Your task to perform on an android device: check battery use Image 0: 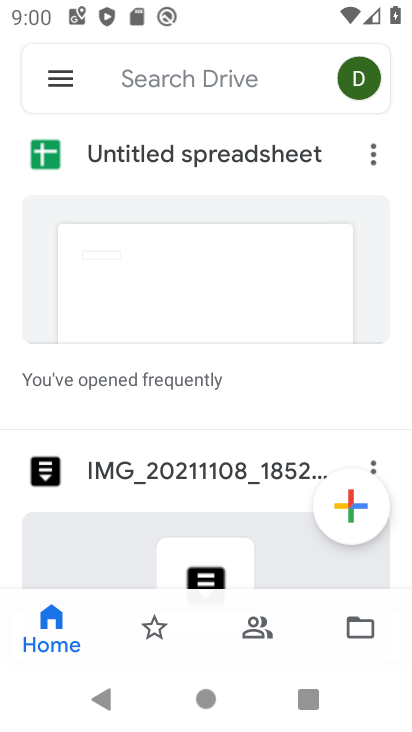
Step 0: press home button
Your task to perform on an android device: check battery use Image 1: 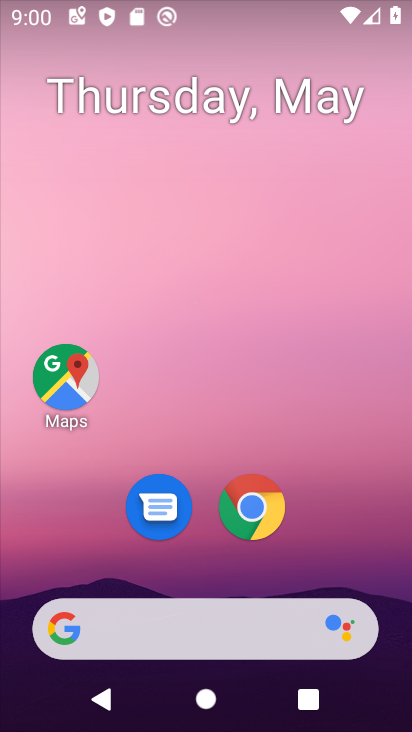
Step 1: drag from (261, 661) to (174, 218)
Your task to perform on an android device: check battery use Image 2: 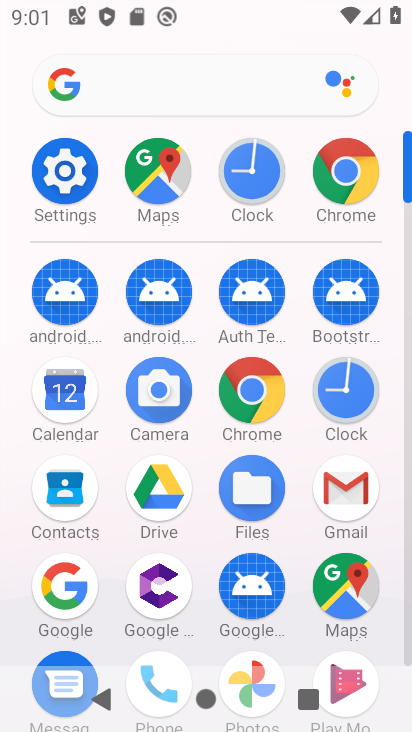
Step 2: click (70, 195)
Your task to perform on an android device: check battery use Image 3: 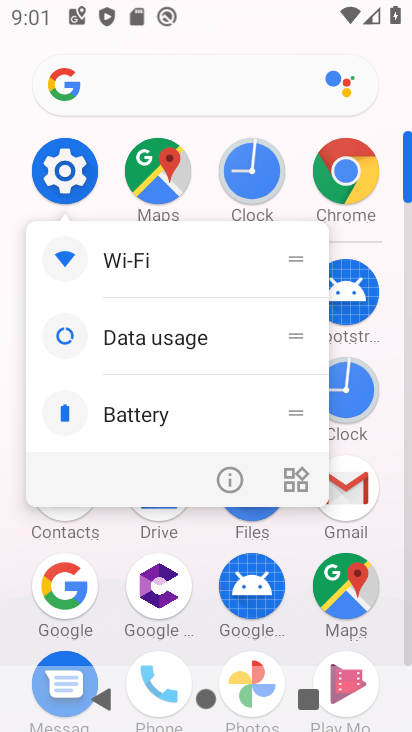
Step 3: click (62, 178)
Your task to perform on an android device: check battery use Image 4: 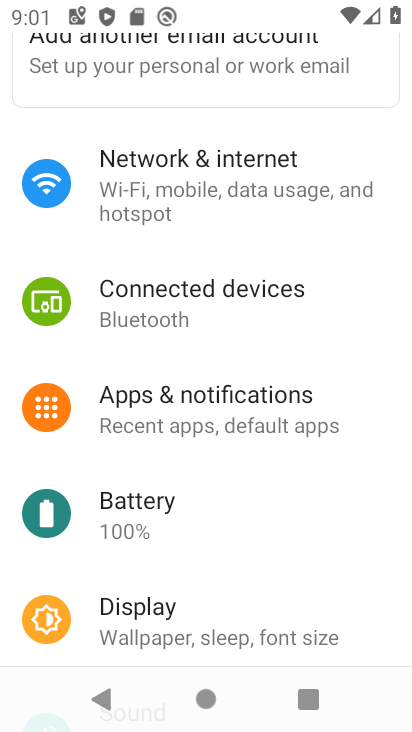
Step 4: click (196, 534)
Your task to perform on an android device: check battery use Image 5: 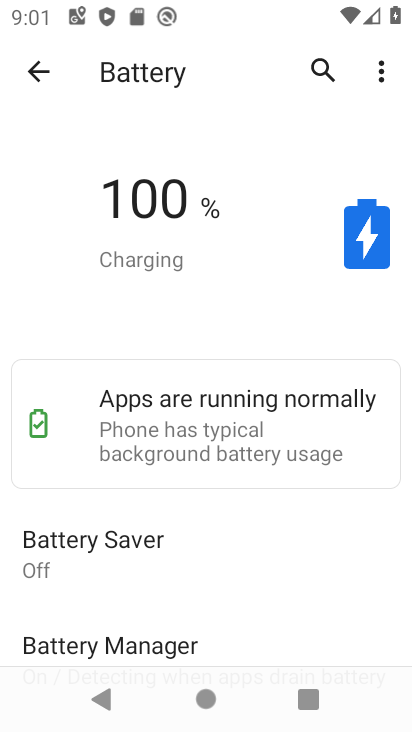
Step 5: task complete